Your task to perform on an android device: Is it going to rain this weekend? Image 0: 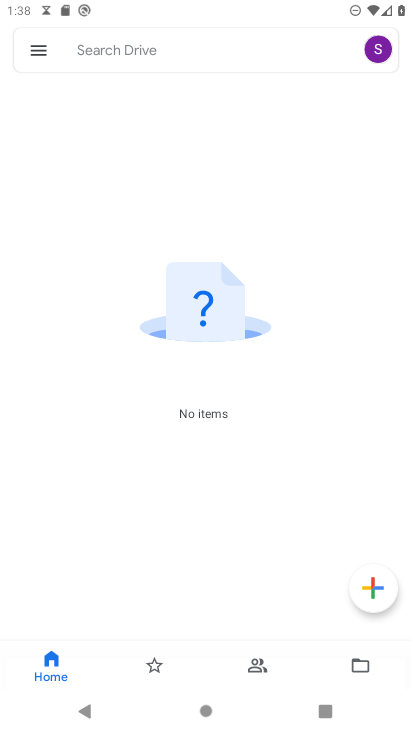
Step 0: press home button
Your task to perform on an android device: Is it going to rain this weekend? Image 1: 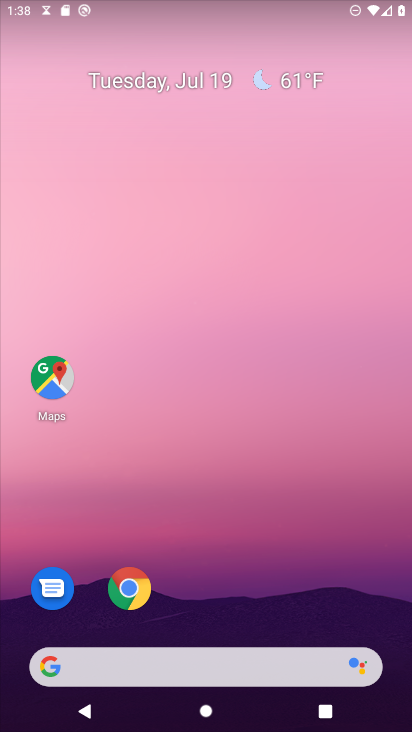
Step 1: drag from (276, 677) to (240, 84)
Your task to perform on an android device: Is it going to rain this weekend? Image 2: 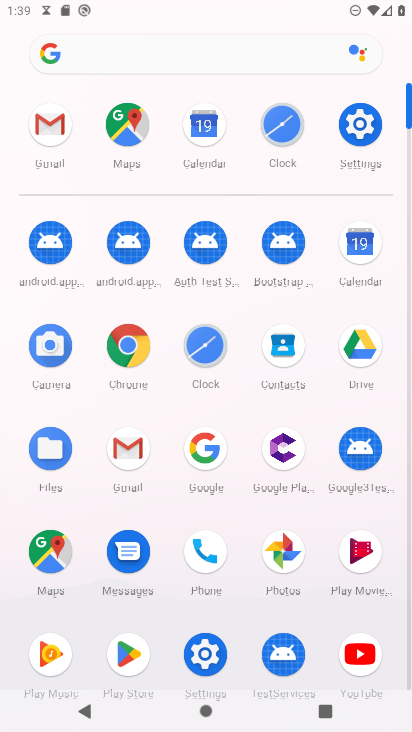
Step 2: click (357, 256)
Your task to perform on an android device: Is it going to rain this weekend? Image 3: 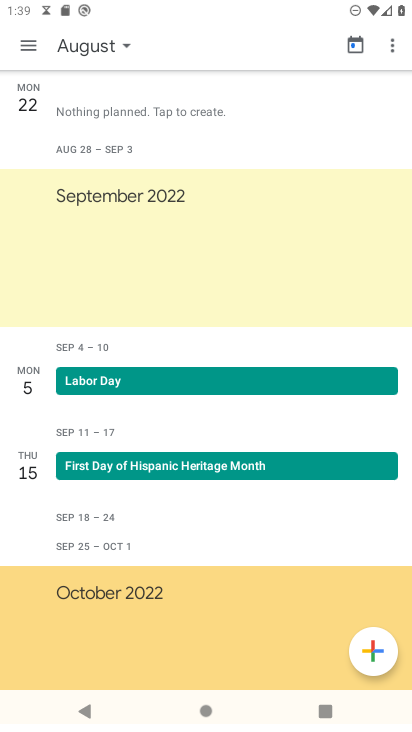
Step 3: click (34, 46)
Your task to perform on an android device: Is it going to rain this weekend? Image 4: 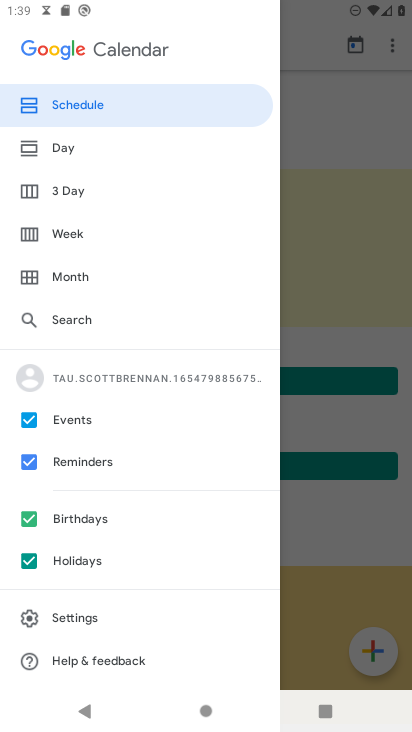
Step 4: press home button
Your task to perform on an android device: Is it going to rain this weekend? Image 5: 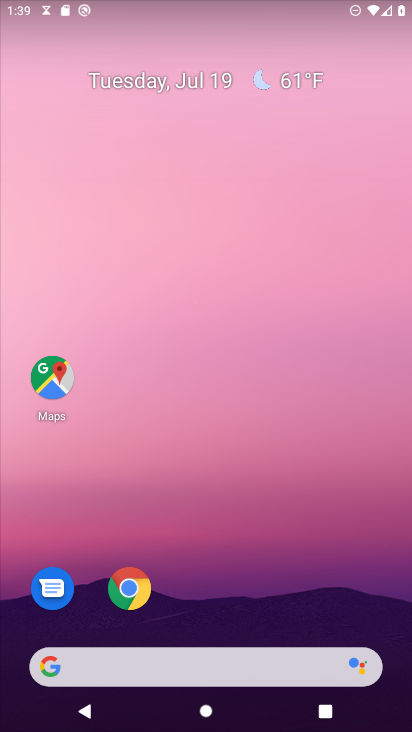
Step 5: click (242, 656)
Your task to perform on an android device: Is it going to rain this weekend? Image 6: 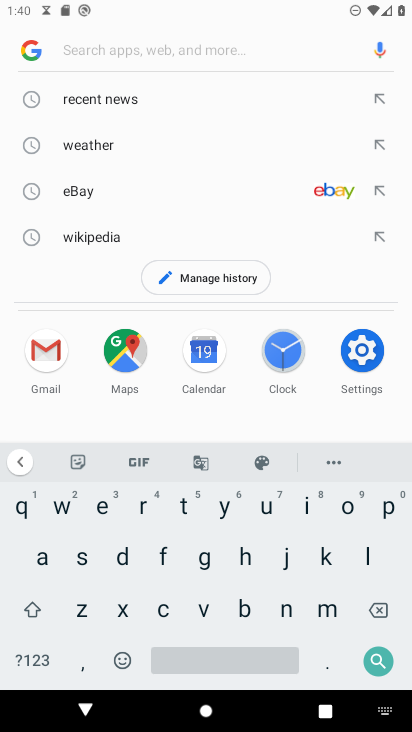
Step 6: click (135, 504)
Your task to perform on an android device: Is it going to rain this weekend? Image 7: 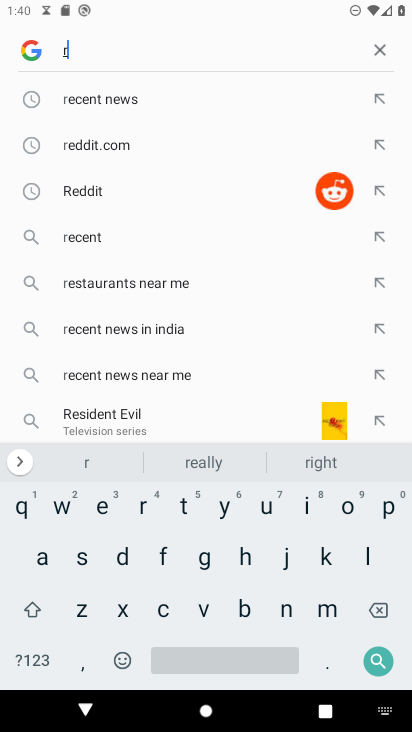
Step 7: click (38, 560)
Your task to perform on an android device: Is it going to rain this weekend? Image 8: 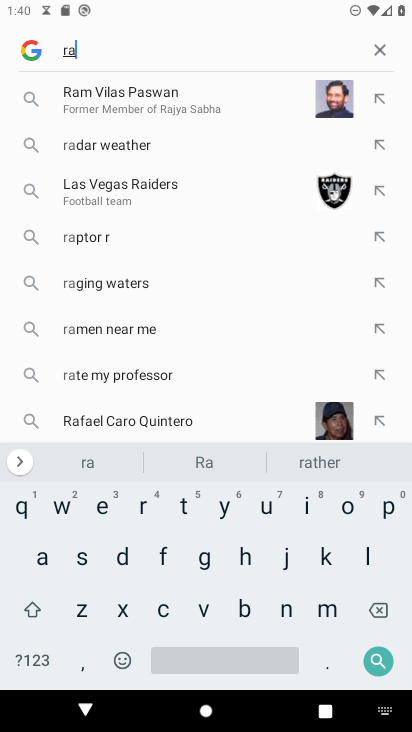
Step 8: click (311, 503)
Your task to perform on an android device: Is it going to rain this weekend? Image 9: 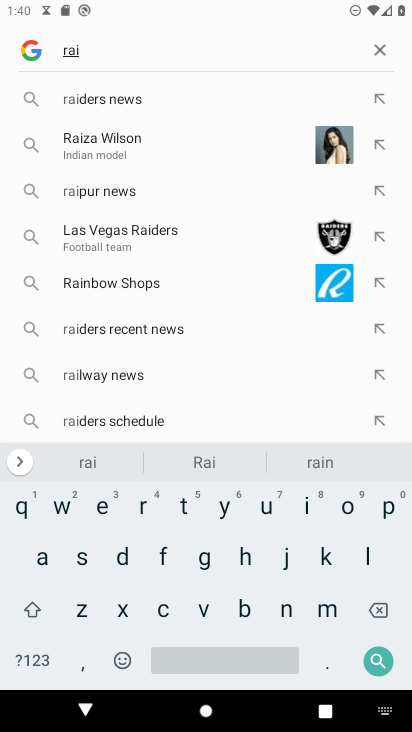
Step 9: click (284, 609)
Your task to perform on an android device: Is it going to rain this weekend? Image 10: 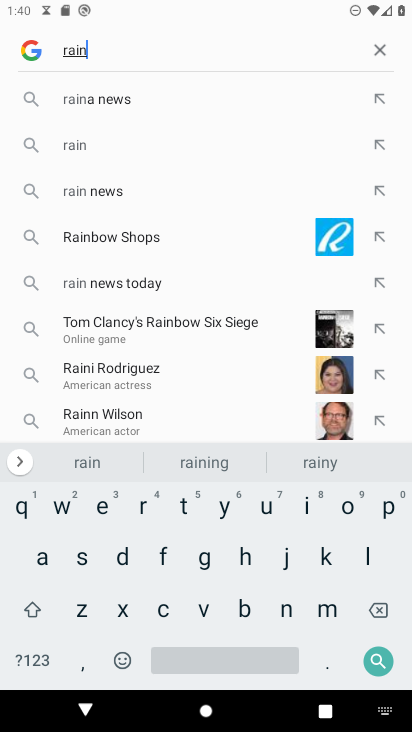
Step 10: click (209, 648)
Your task to perform on an android device: Is it going to rain this weekend? Image 11: 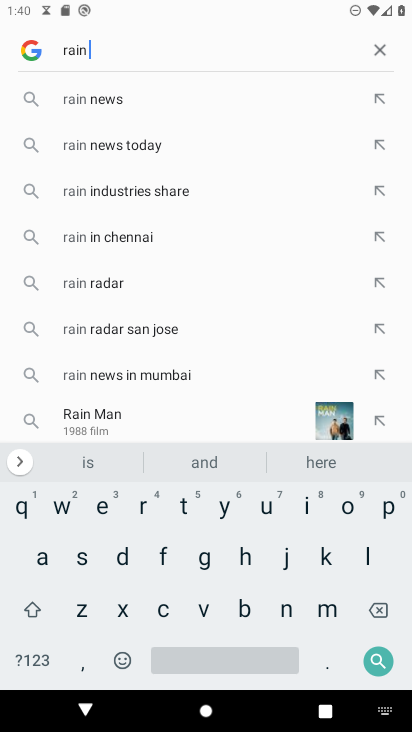
Step 11: click (185, 509)
Your task to perform on an android device: Is it going to rain this weekend? Image 12: 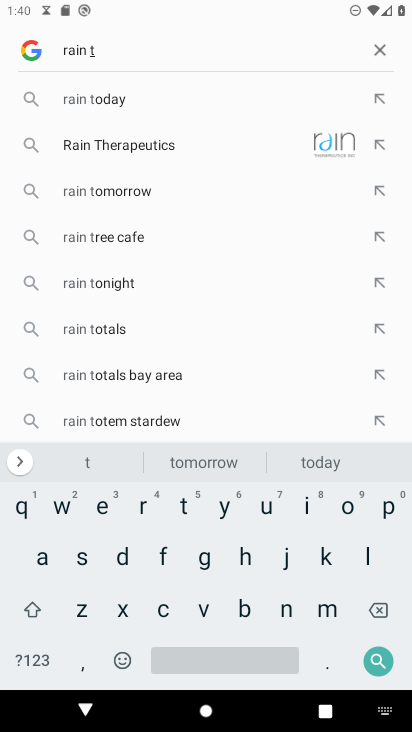
Step 12: click (239, 555)
Your task to perform on an android device: Is it going to rain this weekend? Image 13: 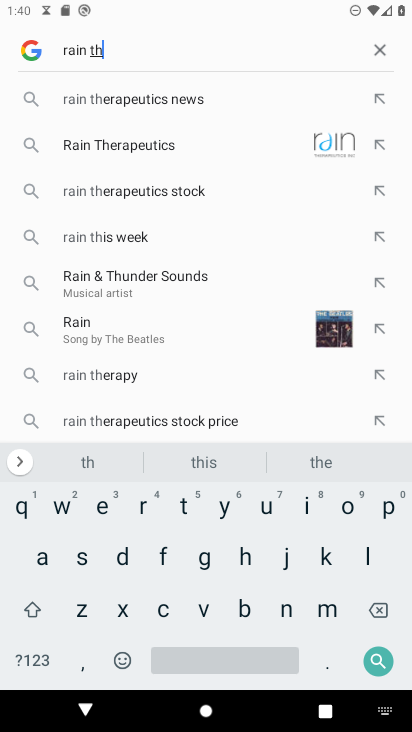
Step 13: click (304, 507)
Your task to perform on an android device: Is it going to rain this weekend? Image 14: 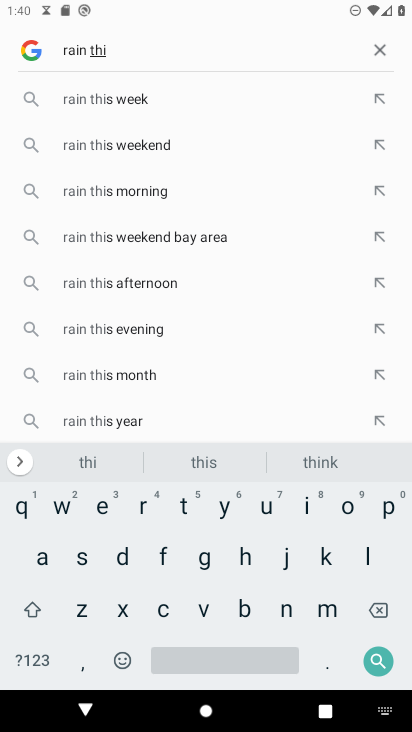
Step 14: click (129, 148)
Your task to perform on an android device: Is it going to rain this weekend? Image 15: 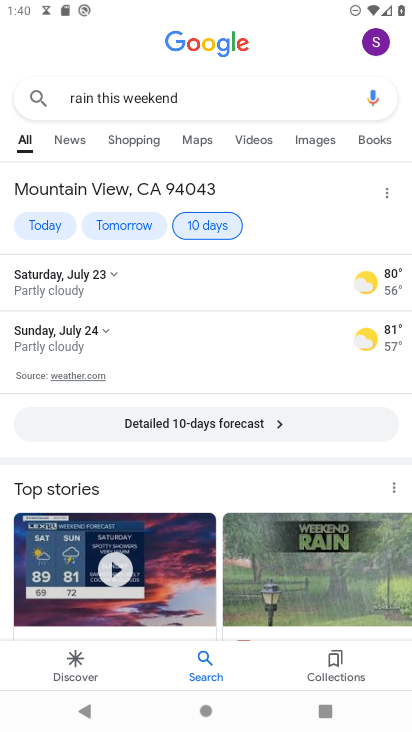
Step 15: task complete